Your task to perform on an android device: Open Google Image 0: 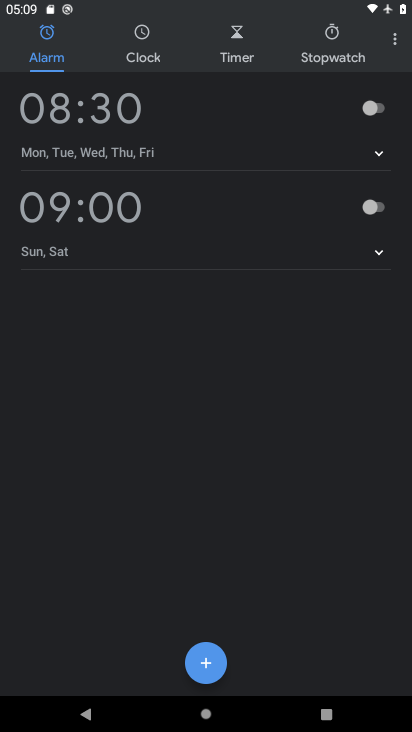
Step 0: press home button
Your task to perform on an android device: Open Google Image 1: 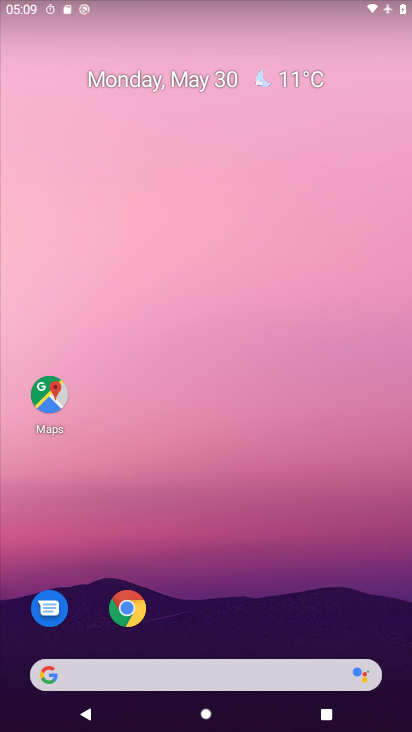
Step 1: drag from (238, 543) to (233, 32)
Your task to perform on an android device: Open Google Image 2: 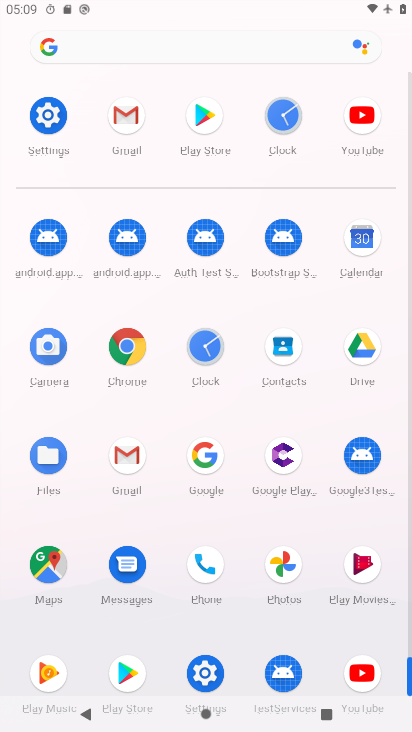
Step 2: click (208, 465)
Your task to perform on an android device: Open Google Image 3: 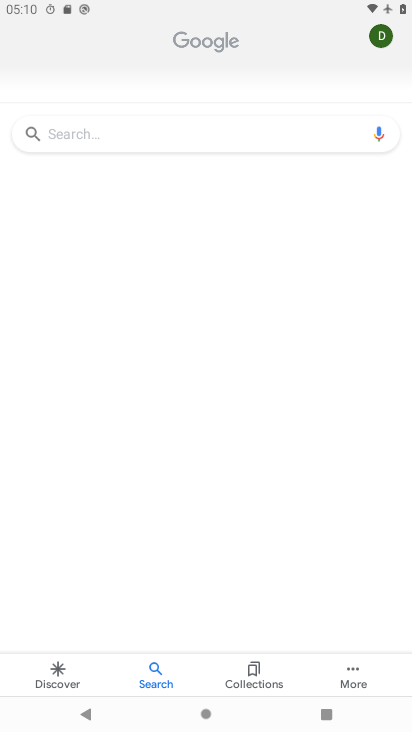
Step 3: task complete